Your task to perform on an android device: When is my next meeting? Image 0: 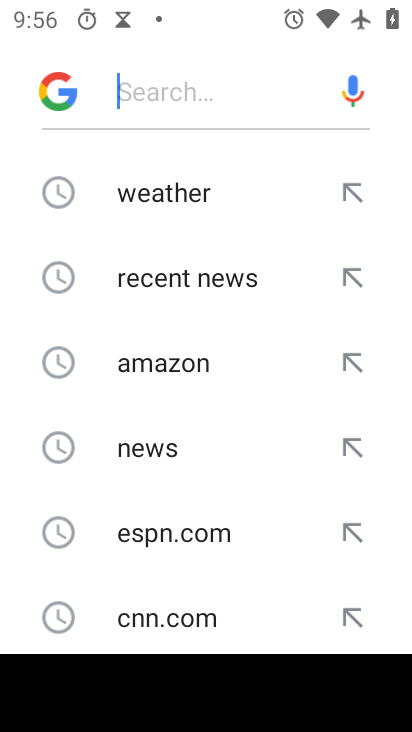
Step 0: press home button
Your task to perform on an android device: When is my next meeting? Image 1: 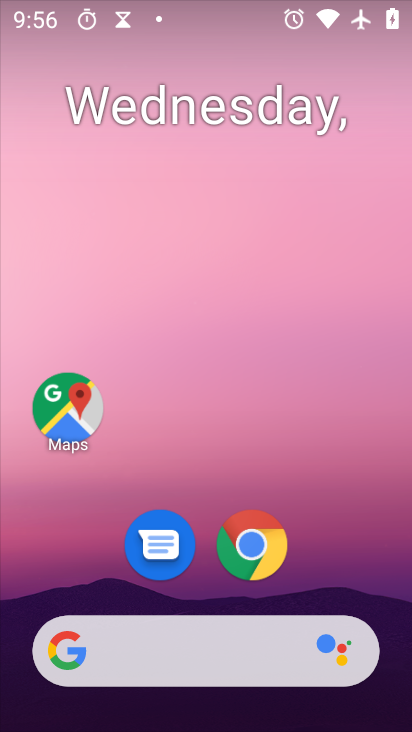
Step 1: drag from (155, 659) to (294, 51)
Your task to perform on an android device: When is my next meeting? Image 2: 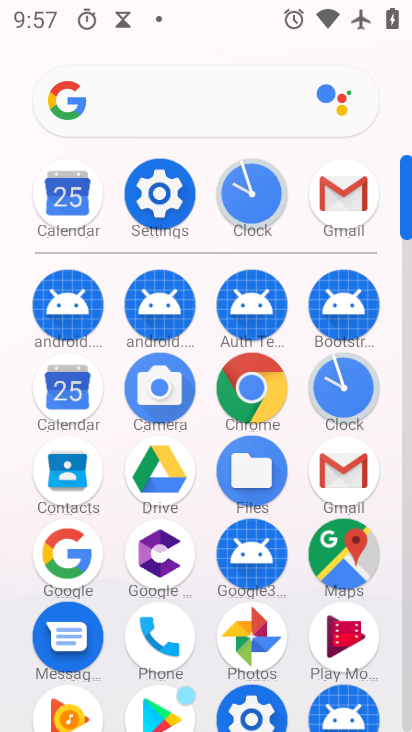
Step 2: click (69, 401)
Your task to perform on an android device: When is my next meeting? Image 3: 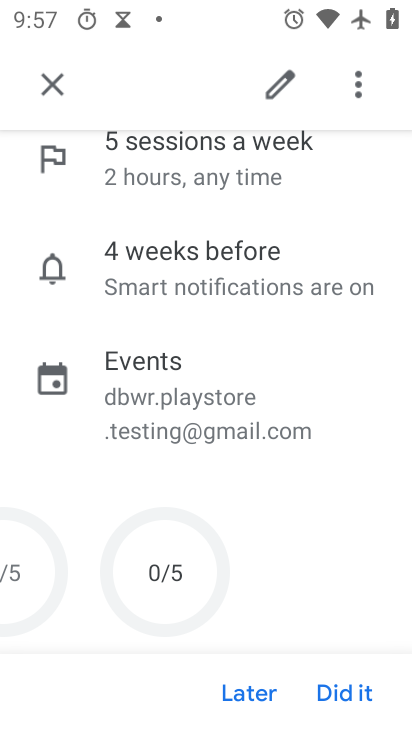
Step 3: drag from (202, 215) to (175, 484)
Your task to perform on an android device: When is my next meeting? Image 4: 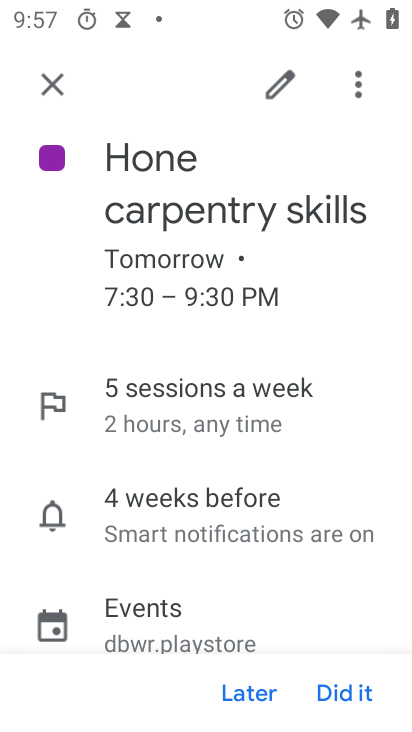
Step 4: click (55, 79)
Your task to perform on an android device: When is my next meeting? Image 5: 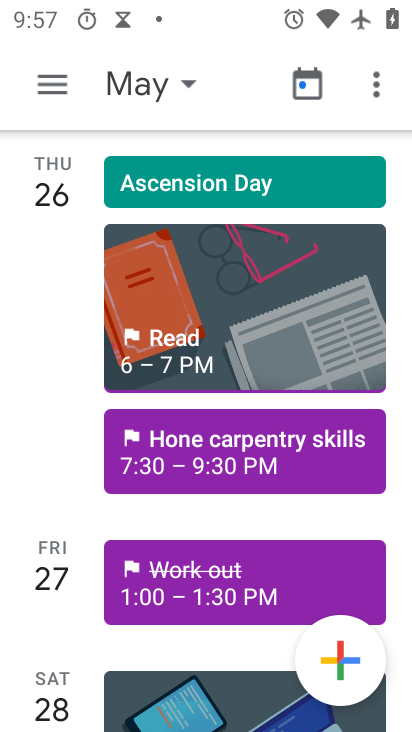
Step 5: click (135, 99)
Your task to perform on an android device: When is my next meeting? Image 6: 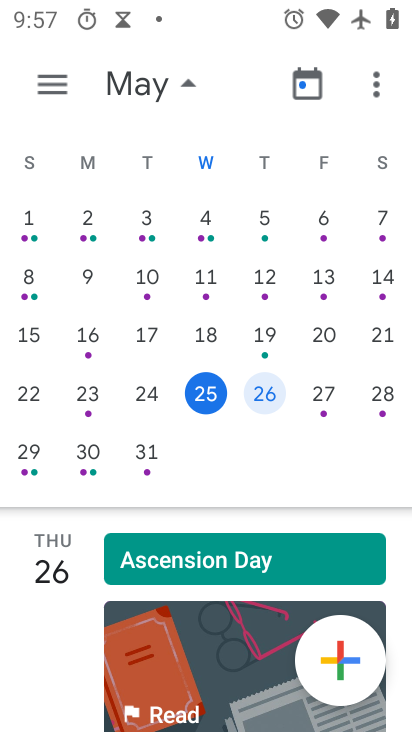
Step 6: click (208, 400)
Your task to perform on an android device: When is my next meeting? Image 7: 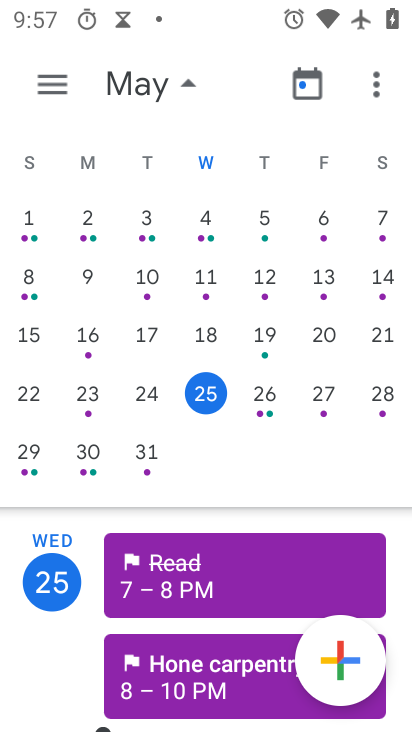
Step 7: click (60, 87)
Your task to perform on an android device: When is my next meeting? Image 8: 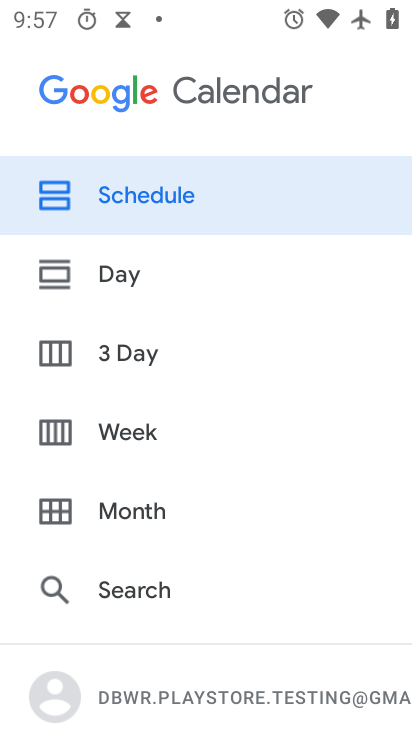
Step 8: click (159, 432)
Your task to perform on an android device: When is my next meeting? Image 9: 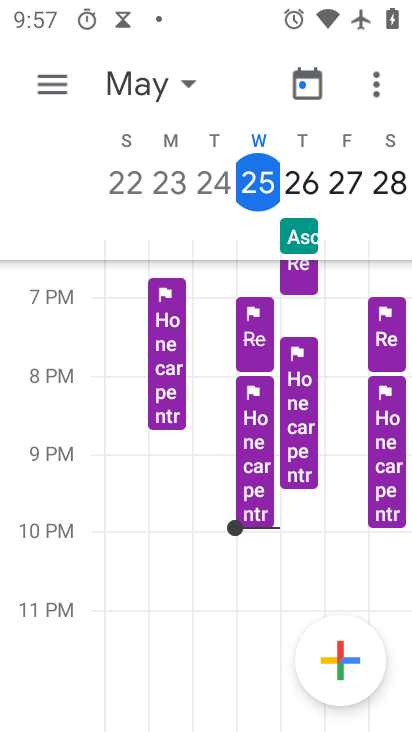
Step 9: click (55, 66)
Your task to perform on an android device: When is my next meeting? Image 10: 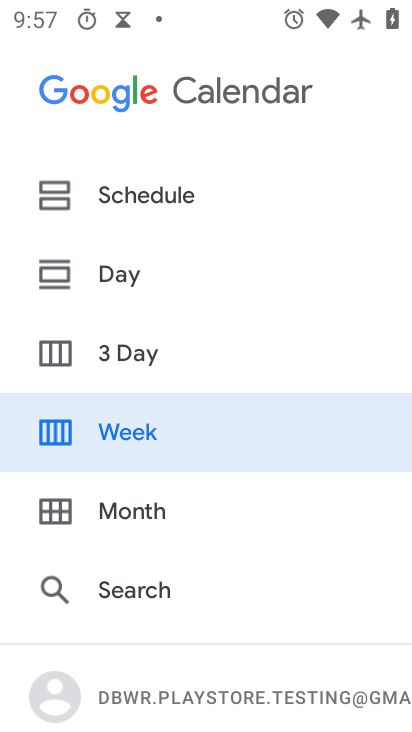
Step 10: click (148, 198)
Your task to perform on an android device: When is my next meeting? Image 11: 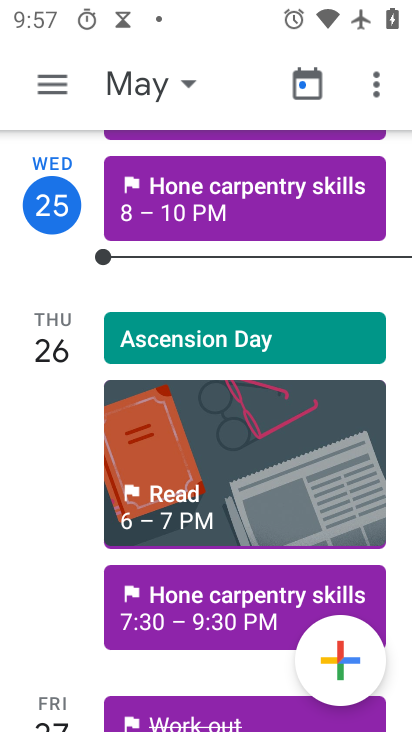
Step 11: task complete